Your task to perform on an android device: Open Google Chrome and click the shortcut for Amazon.com Image 0: 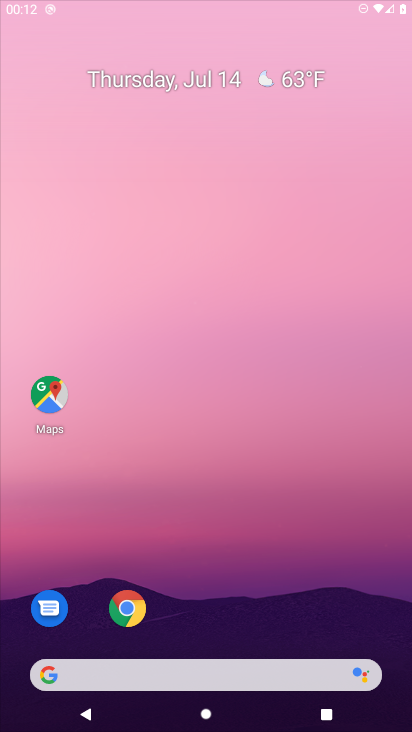
Step 0: press home button
Your task to perform on an android device: Open Google Chrome and click the shortcut for Amazon.com Image 1: 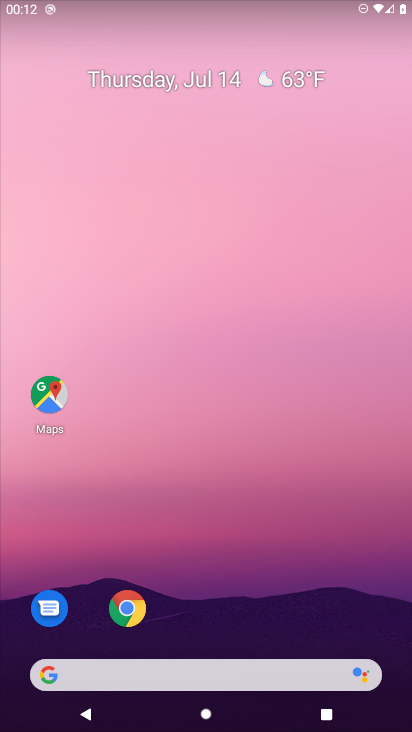
Step 1: drag from (266, 646) to (264, 204)
Your task to perform on an android device: Open Google Chrome and click the shortcut for Amazon.com Image 2: 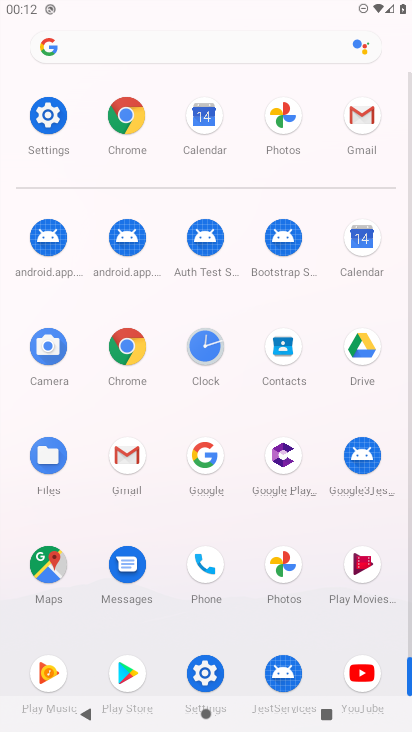
Step 2: click (127, 121)
Your task to perform on an android device: Open Google Chrome and click the shortcut for Amazon.com Image 3: 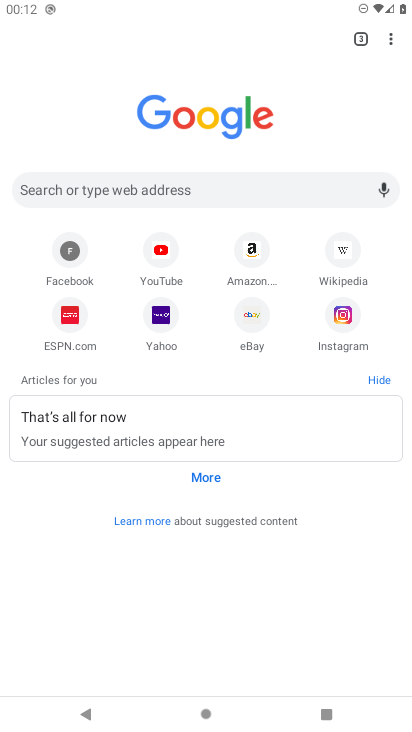
Step 3: click (252, 247)
Your task to perform on an android device: Open Google Chrome and click the shortcut for Amazon.com Image 4: 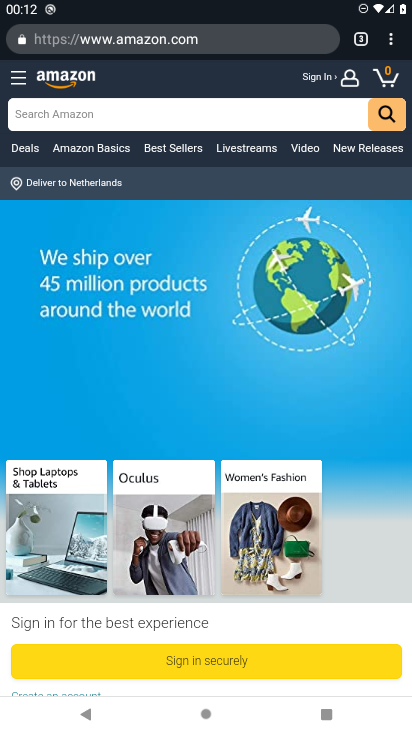
Step 4: task complete